Your task to perform on an android device: Open the calendar and show me this week's events? Image 0: 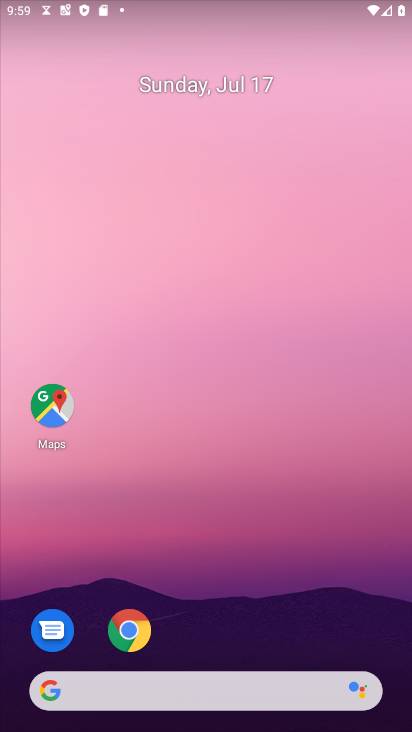
Step 0: drag from (325, 678) to (230, 8)
Your task to perform on an android device: Open the calendar and show me this week's events? Image 1: 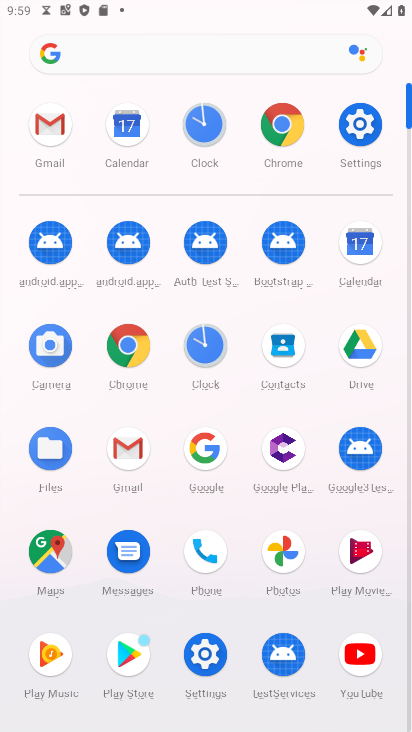
Step 1: click (367, 250)
Your task to perform on an android device: Open the calendar and show me this week's events? Image 2: 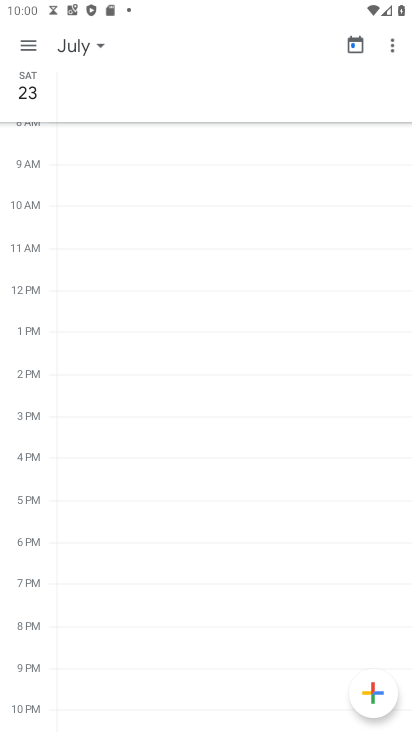
Step 2: click (97, 45)
Your task to perform on an android device: Open the calendar and show me this week's events? Image 3: 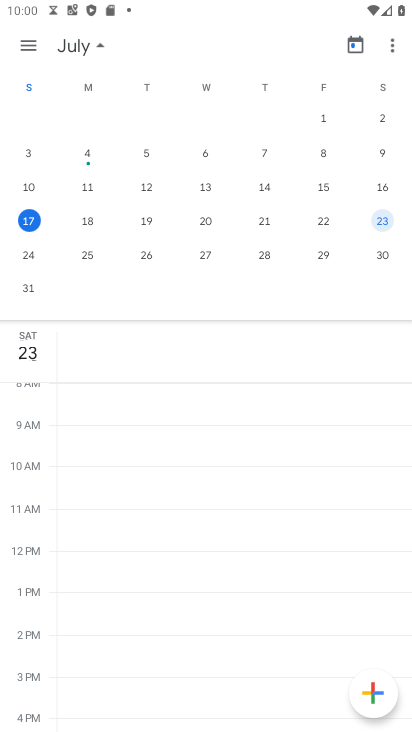
Step 3: click (29, 53)
Your task to perform on an android device: Open the calendar and show me this week's events? Image 4: 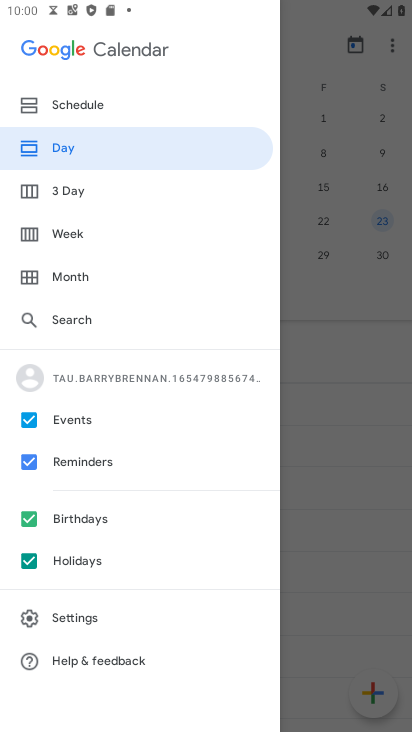
Step 4: click (94, 230)
Your task to perform on an android device: Open the calendar and show me this week's events? Image 5: 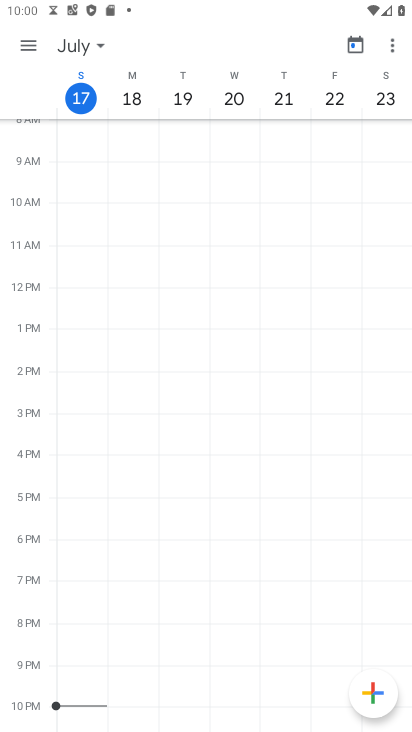
Step 5: task complete